Your task to perform on an android device: Check the weather Image 0: 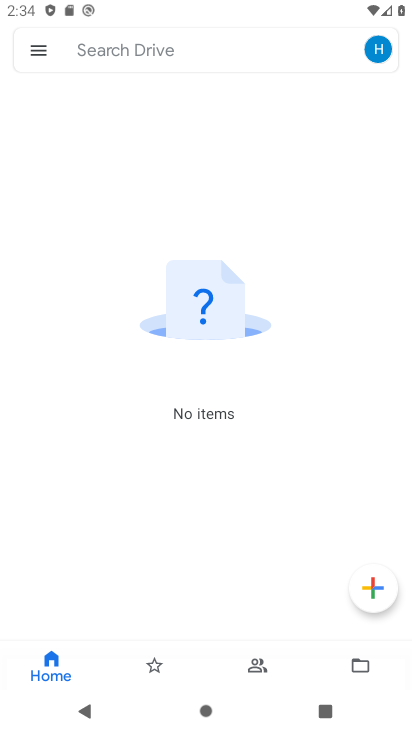
Step 0: press home button
Your task to perform on an android device: Check the weather Image 1: 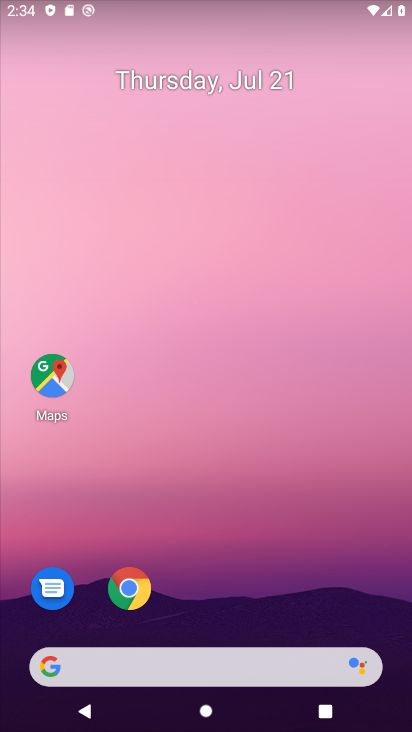
Step 1: click (233, 659)
Your task to perform on an android device: Check the weather Image 2: 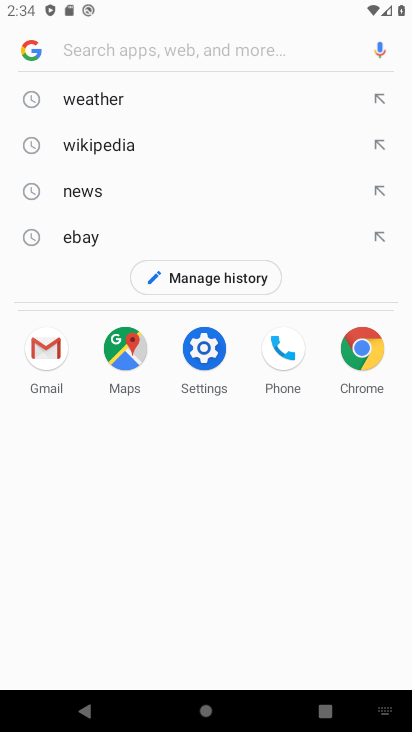
Step 2: click (109, 97)
Your task to perform on an android device: Check the weather Image 3: 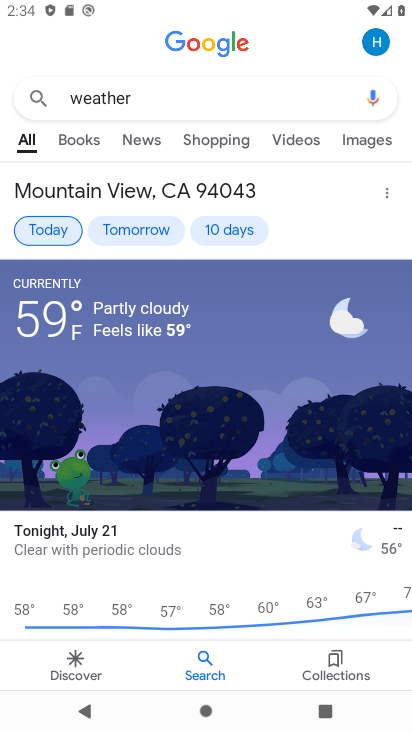
Step 3: task complete